Your task to perform on an android device: Open privacy settings Image 0: 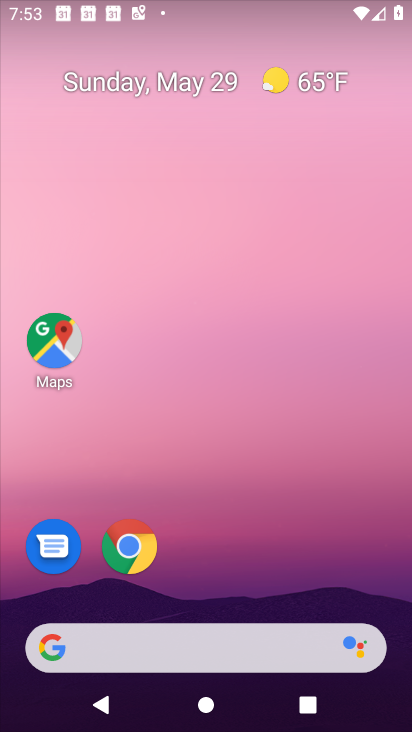
Step 0: drag from (200, 628) to (243, 260)
Your task to perform on an android device: Open privacy settings Image 1: 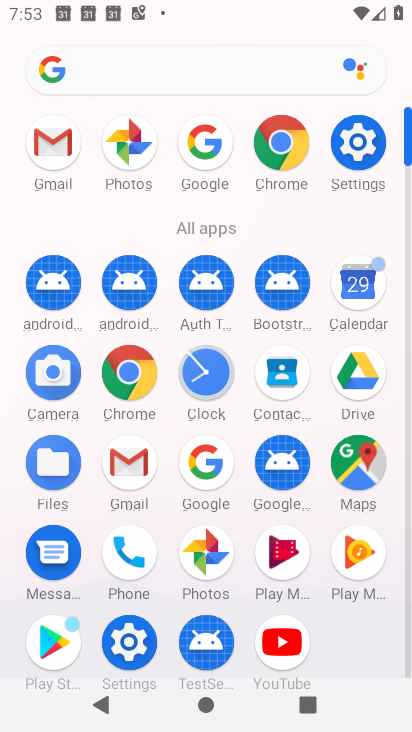
Step 1: click (374, 148)
Your task to perform on an android device: Open privacy settings Image 2: 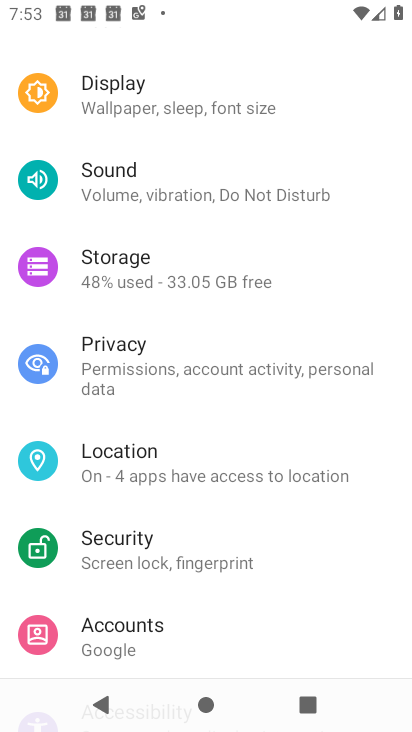
Step 2: click (133, 357)
Your task to perform on an android device: Open privacy settings Image 3: 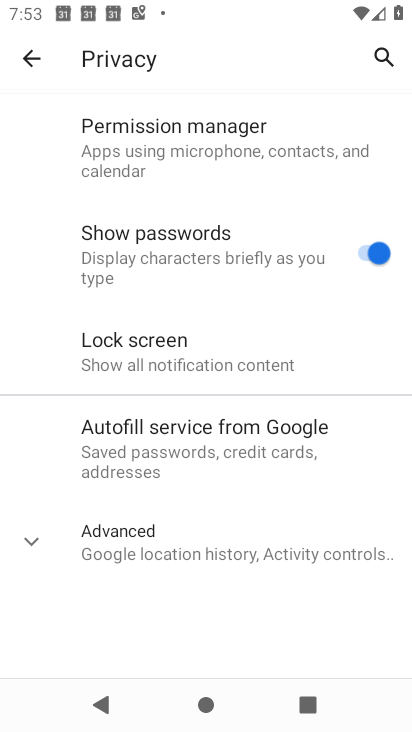
Step 3: click (140, 562)
Your task to perform on an android device: Open privacy settings Image 4: 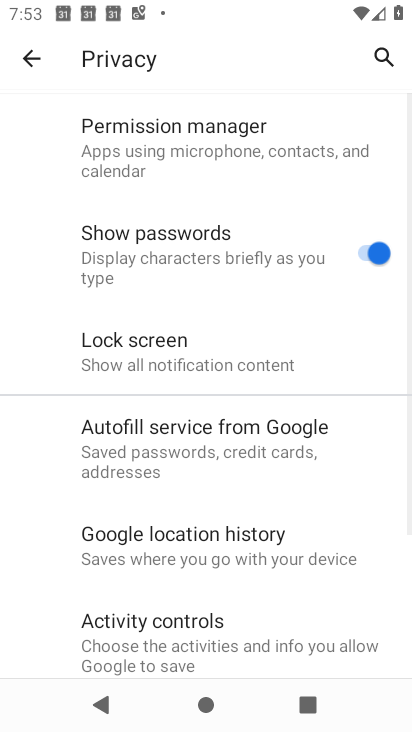
Step 4: task complete